Your task to perform on an android device: Open battery settings Image 0: 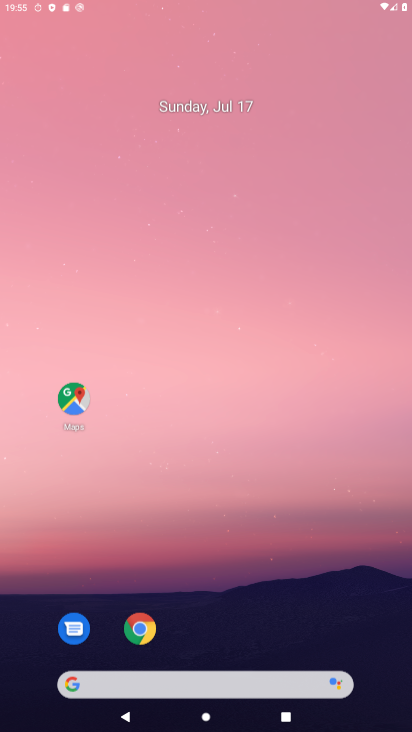
Step 0: click (325, 124)
Your task to perform on an android device: Open battery settings Image 1: 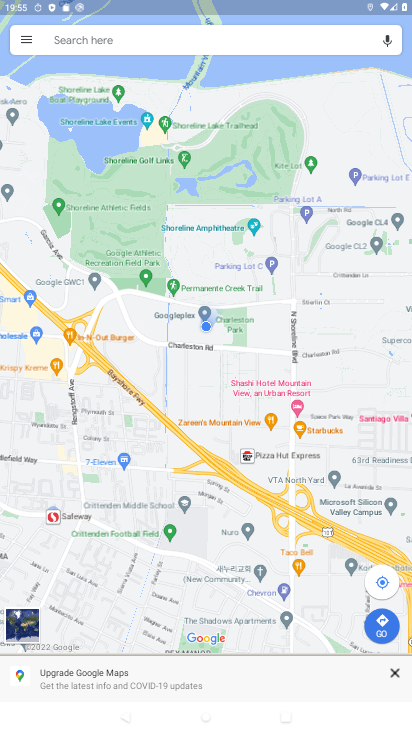
Step 1: press home button
Your task to perform on an android device: Open battery settings Image 2: 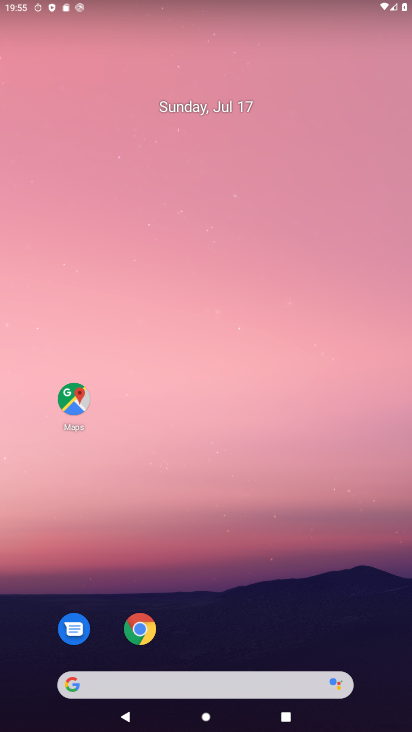
Step 2: click (270, 5)
Your task to perform on an android device: Open battery settings Image 3: 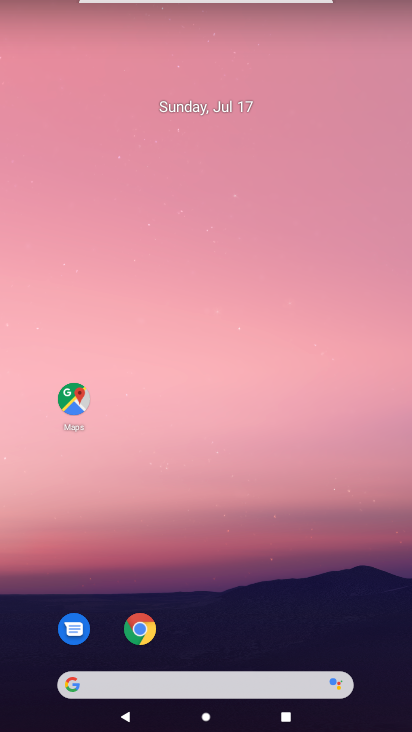
Step 3: drag from (263, 348) to (250, 39)
Your task to perform on an android device: Open battery settings Image 4: 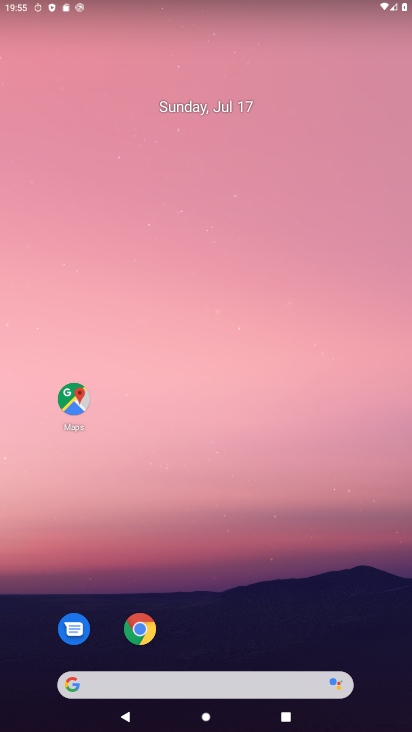
Step 4: click (273, 0)
Your task to perform on an android device: Open battery settings Image 5: 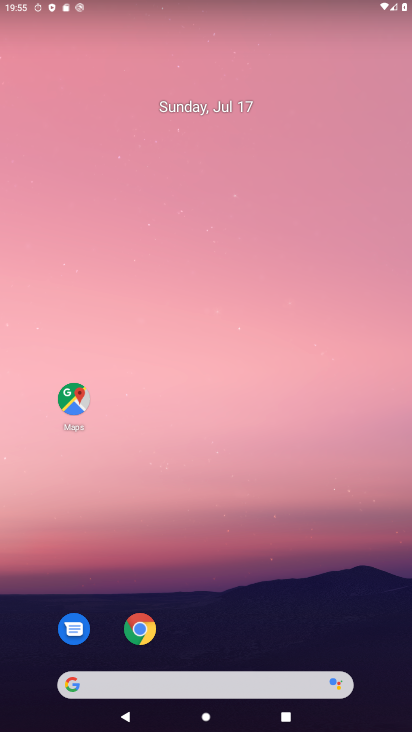
Step 5: drag from (269, 462) to (249, 122)
Your task to perform on an android device: Open battery settings Image 6: 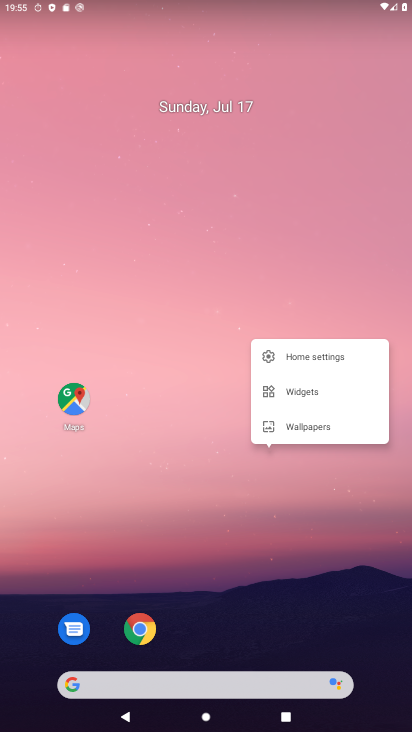
Step 6: click (273, 215)
Your task to perform on an android device: Open battery settings Image 7: 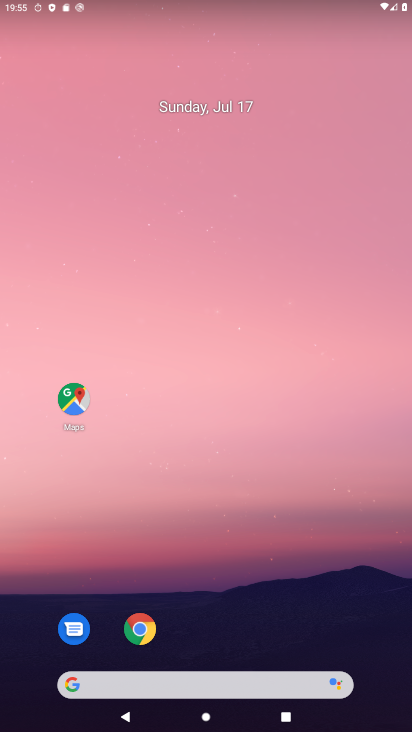
Step 7: drag from (258, 459) to (279, 95)
Your task to perform on an android device: Open battery settings Image 8: 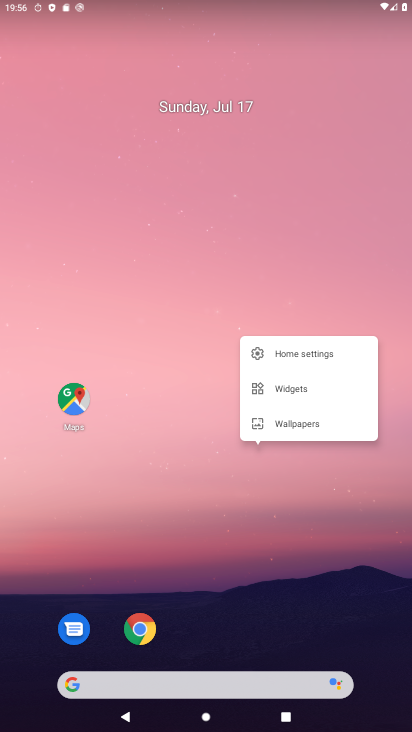
Step 8: click (399, 574)
Your task to perform on an android device: Open battery settings Image 9: 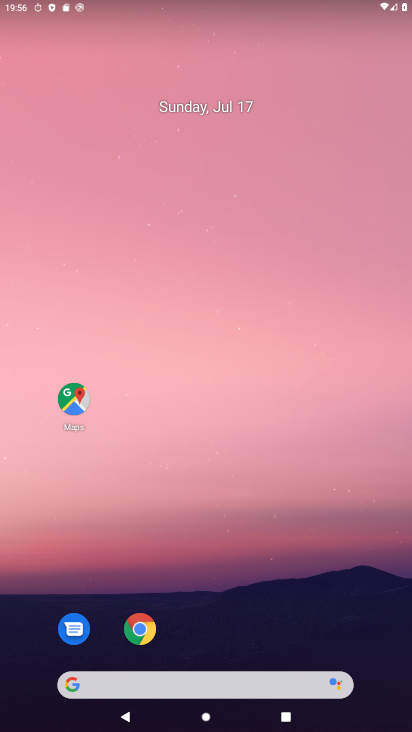
Step 9: drag from (370, 685) to (310, 119)
Your task to perform on an android device: Open battery settings Image 10: 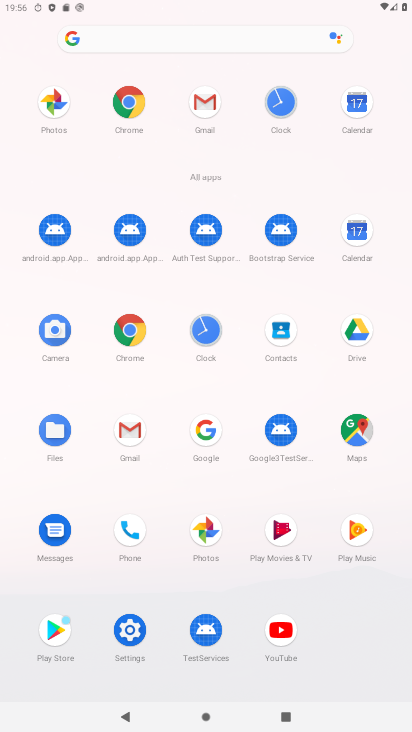
Step 10: click (137, 622)
Your task to perform on an android device: Open battery settings Image 11: 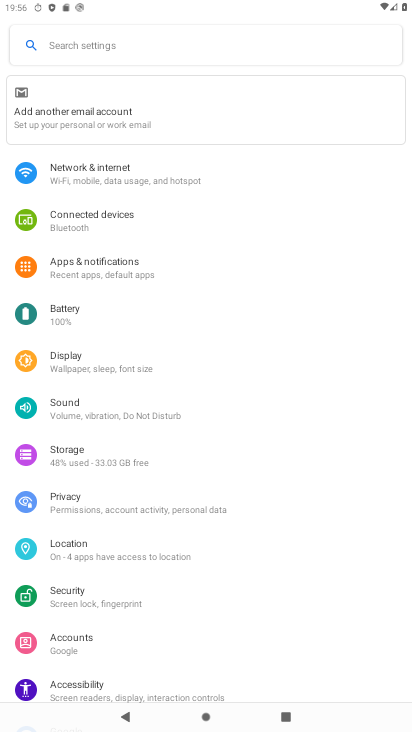
Step 11: click (61, 309)
Your task to perform on an android device: Open battery settings Image 12: 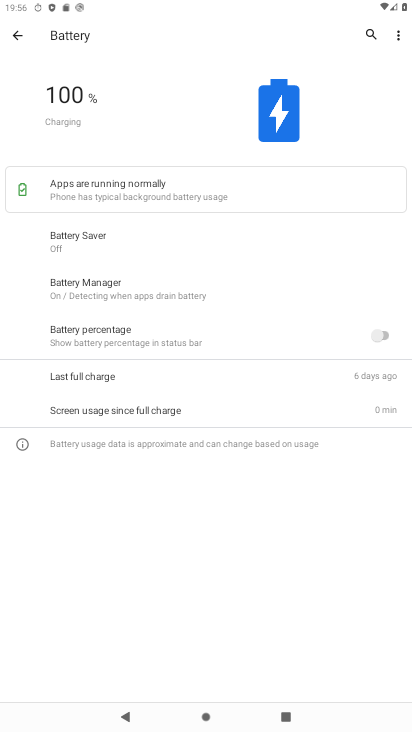
Step 12: task complete